Your task to perform on an android device: toggle airplane mode Image 0: 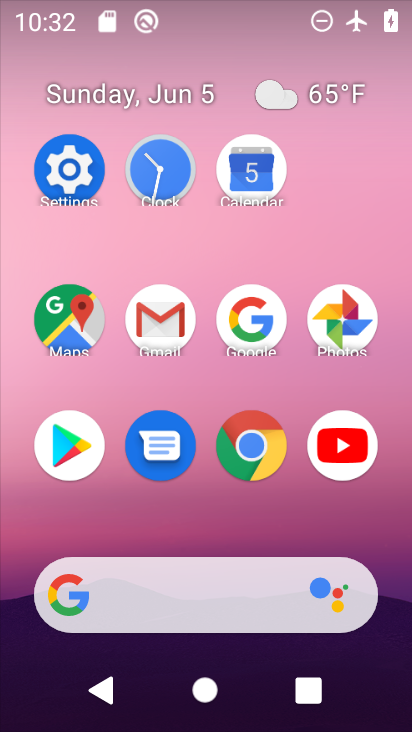
Step 0: click (105, 154)
Your task to perform on an android device: toggle airplane mode Image 1: 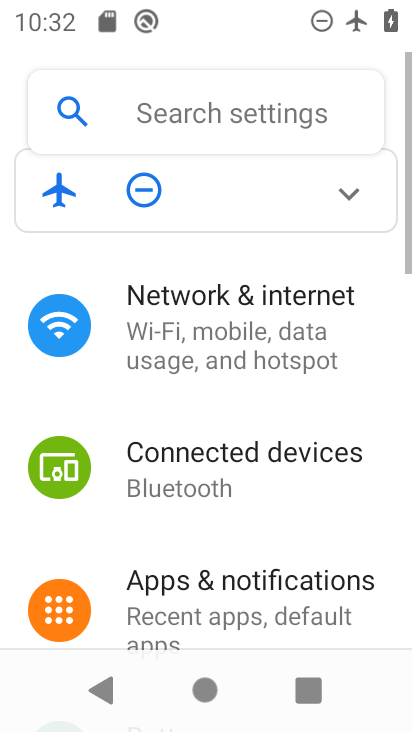
Step 1: click (241, 383)
Your task to perform on an android device: toggle airplane mode Image 2: 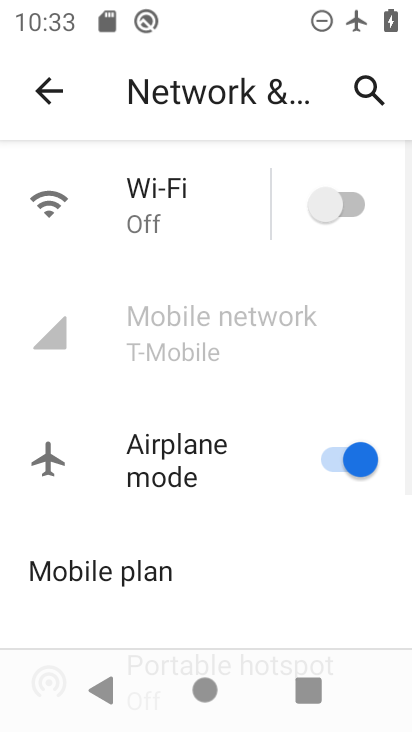
Step 2: click (367, 460)
Your task to perform on an android device: toggle airplane mode Image 3: 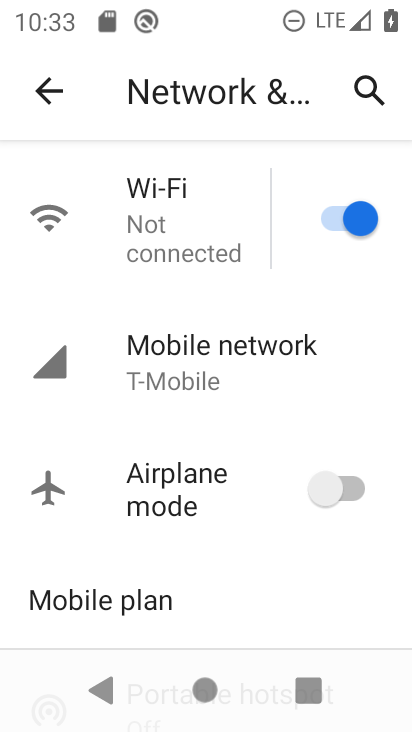
Step 3: task complete